Your task to perform on an android device: add a contact Image 0: 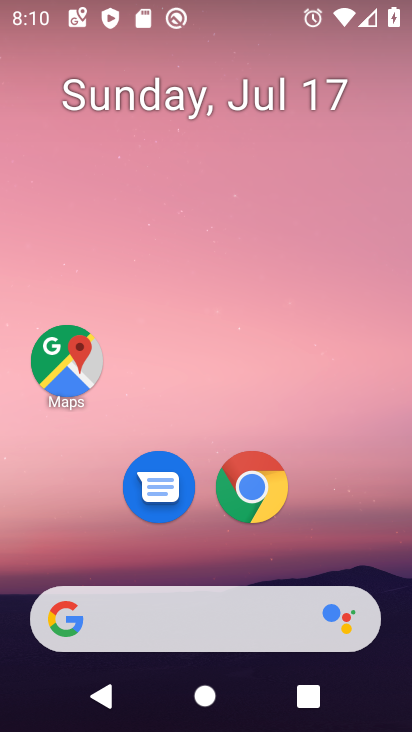
Step 0: drag from (81, 585) to (210, 35)
Your task to perform on an android device: add a contact Image 1: 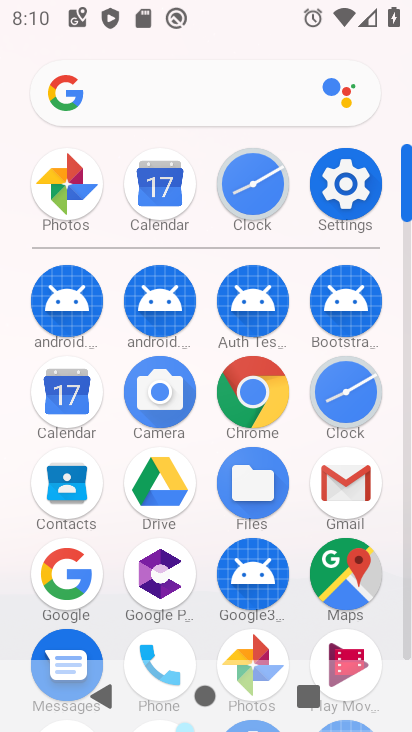
Step 1: click (58, 494)
Your task to perform on an android device: add a contact Image 2: 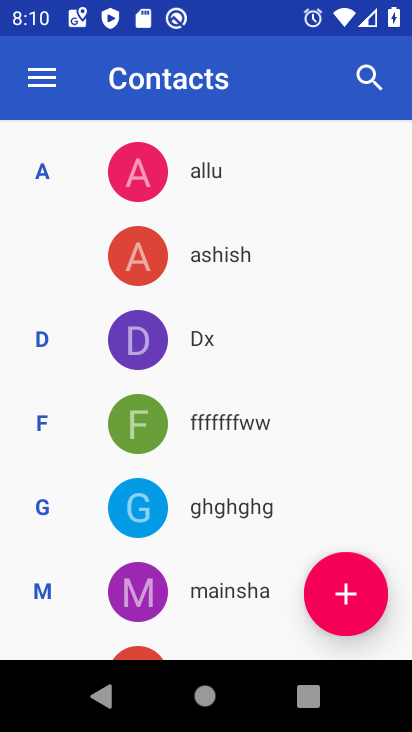
Step 2: click (346, 601)
Your task to perform on an android device: add a contact Image 3: 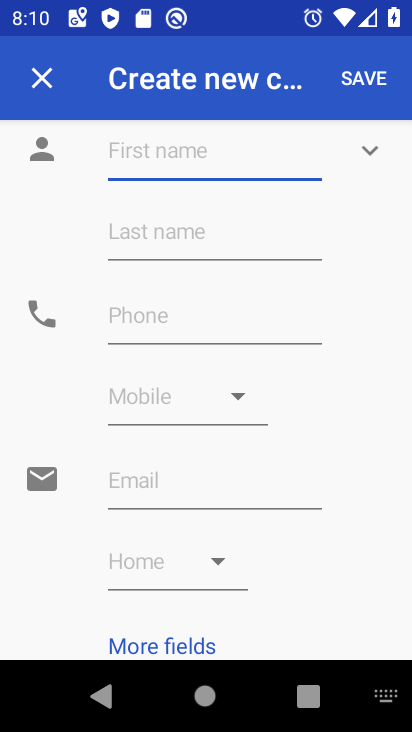
Step 3: click (163, 158)
Your task to perform on an android device: add a contact Image 4: 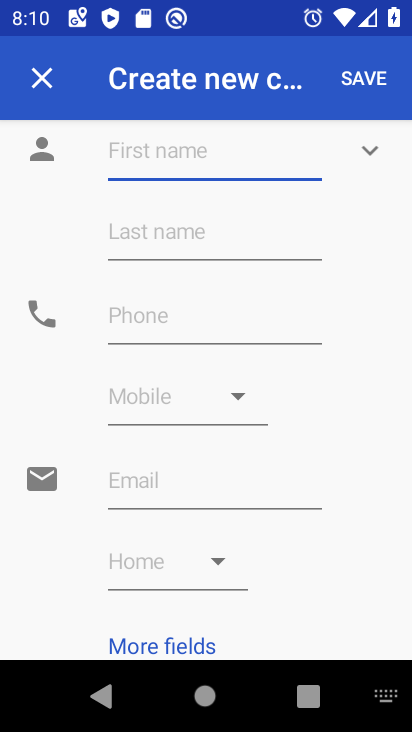
Step 4: type "gvgv"
Your task to perform on an android device: add a contact Image 5: 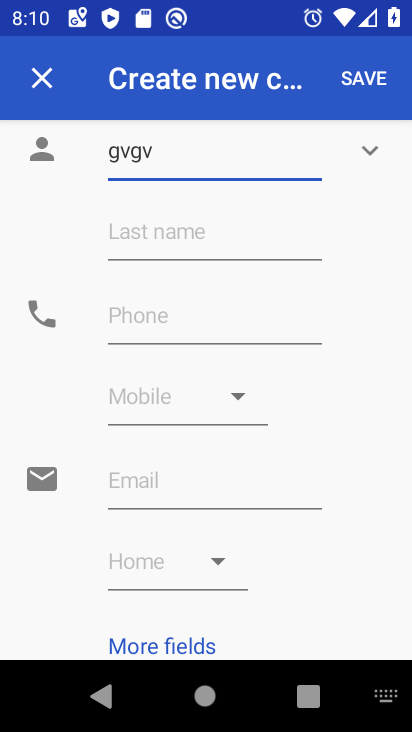
Step 5: click (155, 305)
Your task to perform on an android device: add a contact Image 6: 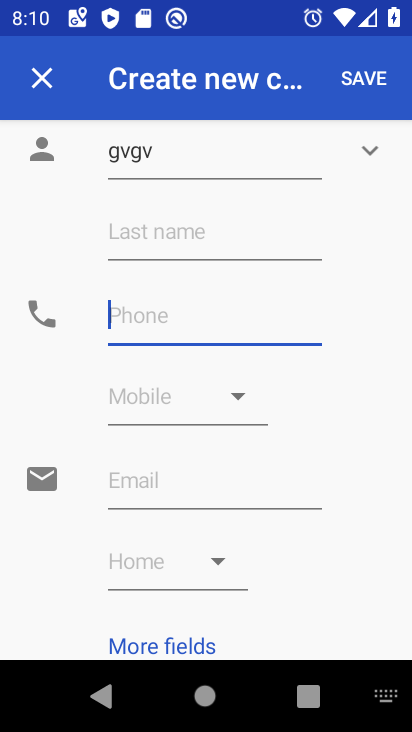
Step 6: type "77878"
Your task to perform on an android device: add a contact Image 7: 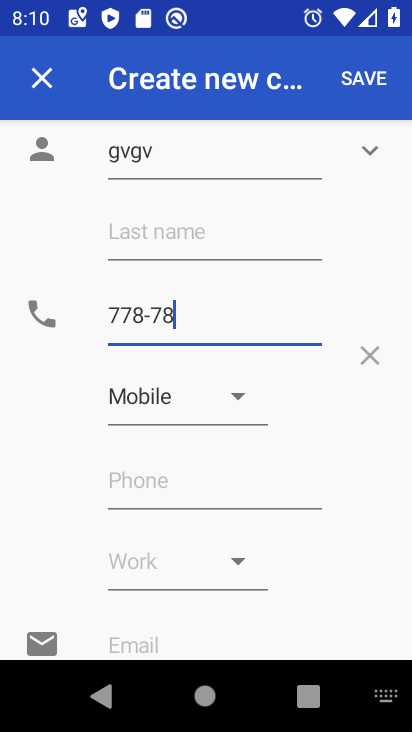
Step 7: click (356, 64)
Your task to perform on an android device: add a contact Image 8: 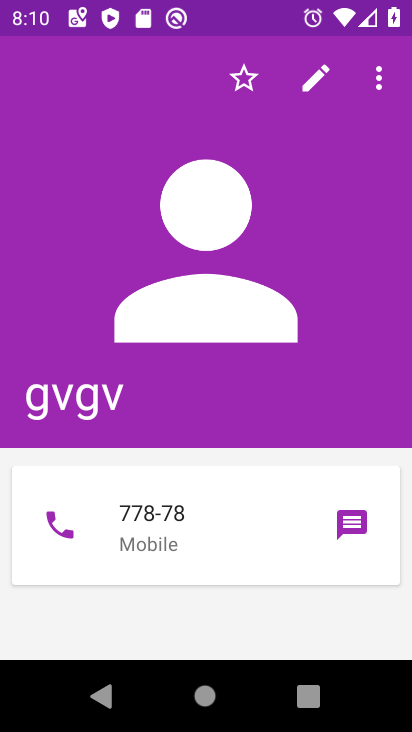
Step 8: task complete